Your task to perform on an android device: Open Google Chrome and open the bookmarks view Image 0: 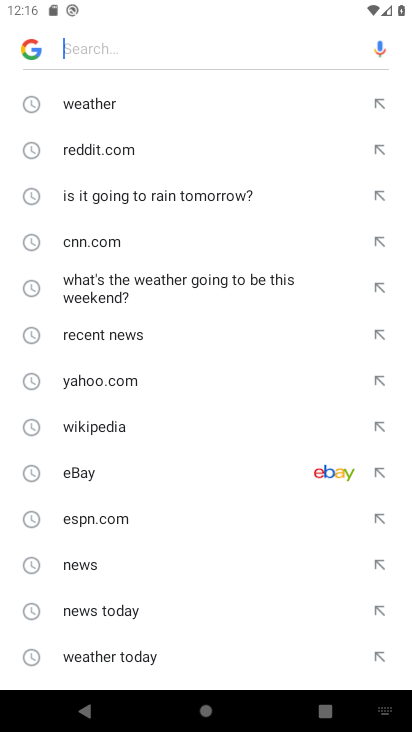
Step 0: press home button
Your task to perform on an android device: Open Google Chrome and open the bookmarks view Image 1: 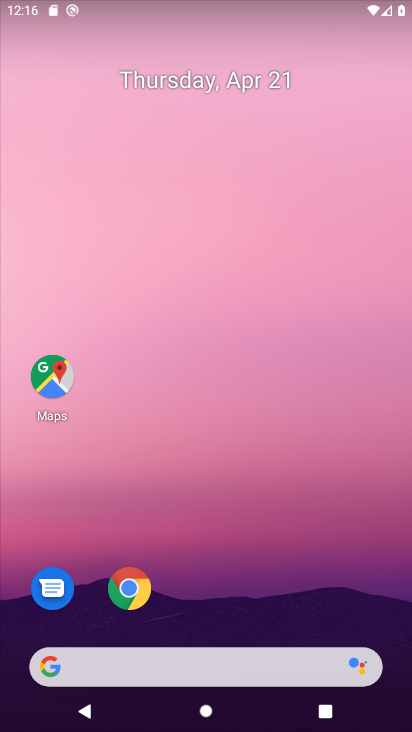
Step 1: drag from (220, 622) to (246, 75)
Your task to perform on an android device: Open Google Chrome and open the bookmarks view Image 2: 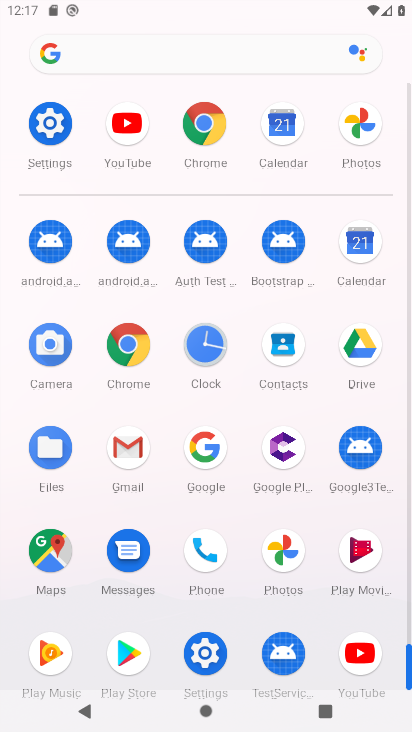
Step 2: click (127, 341)
Your task to perform on an android device: Open Google Chrome and open the bookmarks view Image 3: 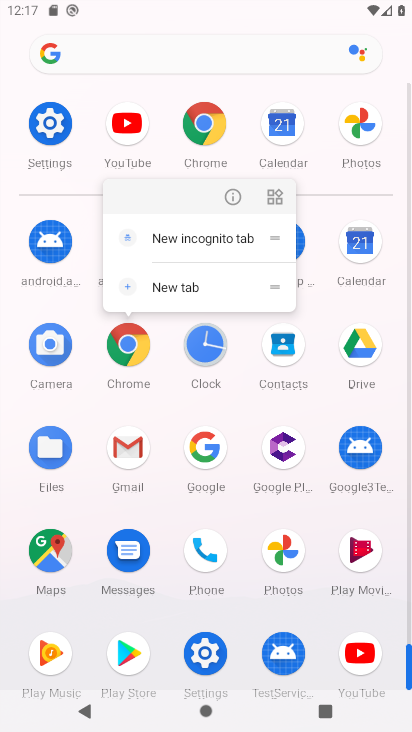
Step 3: click (127, 341)
Your task to perform on an android device: Open Google Chrome and open the bookmarks view Image 4: 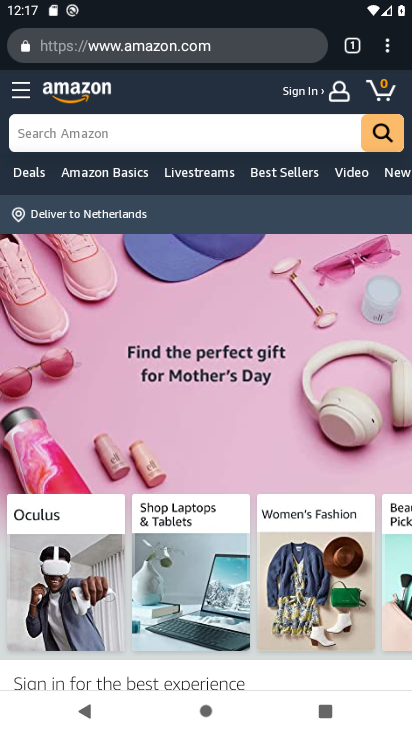
Step 4: click (387, 44)
Your task to perform on an android device: Open Google Chrome and open the bookmarks view Image 5: 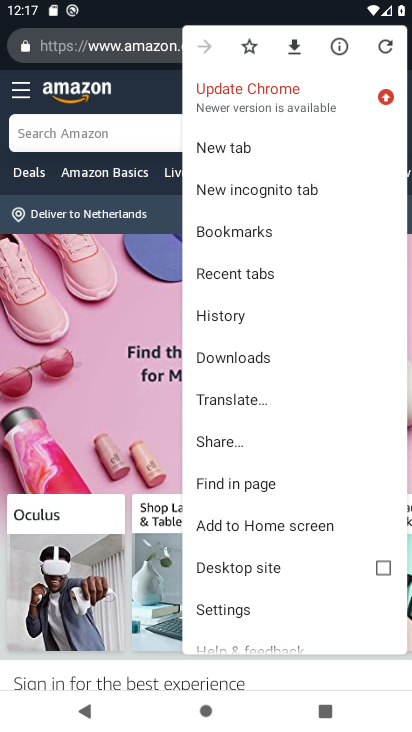
Step 5: click (276, 232)
Your task to perform on an android device: Open Google Chrome and open the bookmarks view Image 6: 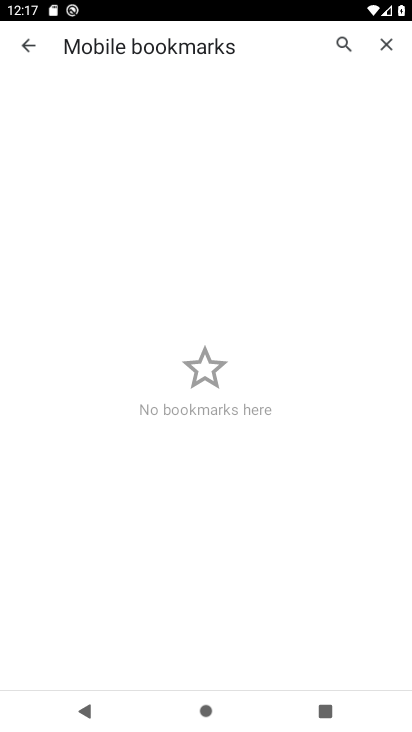
Step 6: task complete